Your task to perform on an android device: What's the weather going to be this weekend? Image 0: 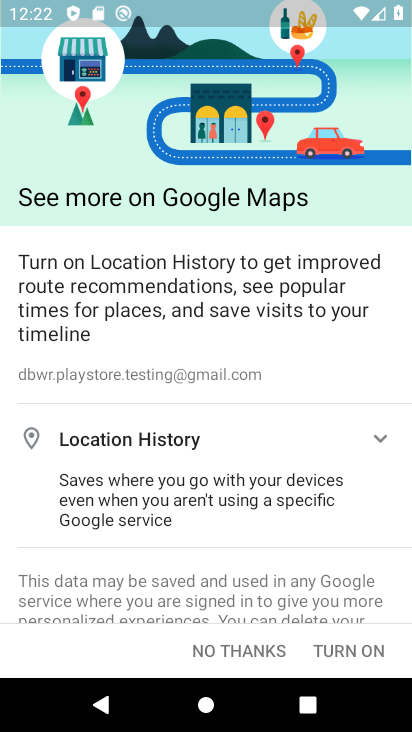
Step 0: press back button
Your task to perform on an android device: What's the weather going to be this weekend? Image 1: 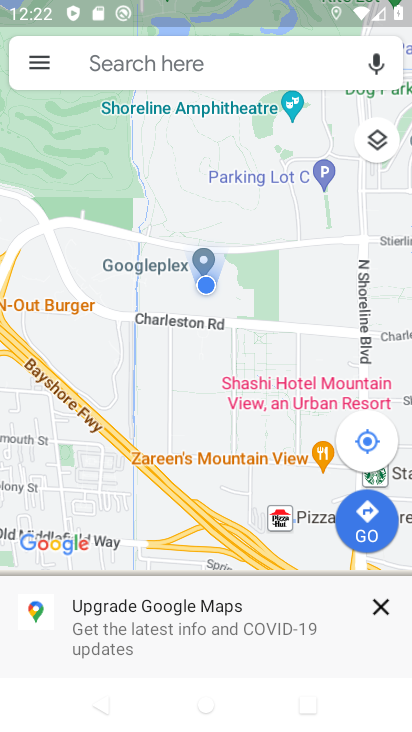
Step 1: press home button
Your task to perform on an android device: What's the weather going to be this weekend? Image 2: 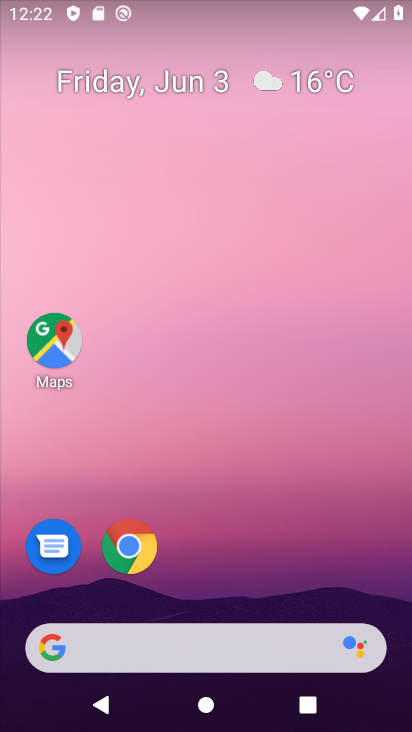
Step 2: click (271, 77)
Your task to perform on an android device: What's the weather going to be this weekend? Image 3: 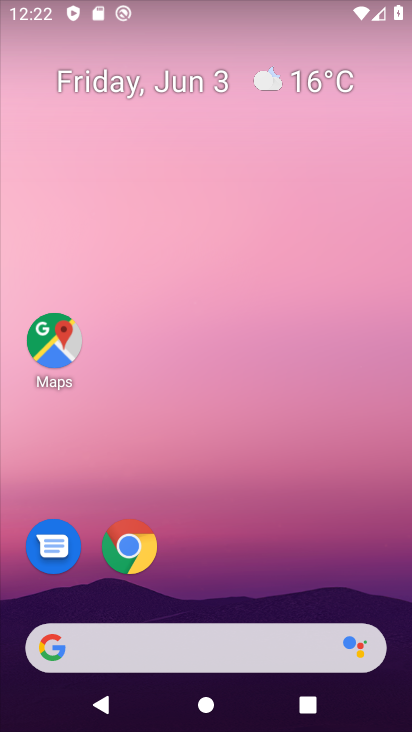
Step 3: click (266, 81)
Your task to perform on an android device: What's the weather going to be this weekend? Image 4: 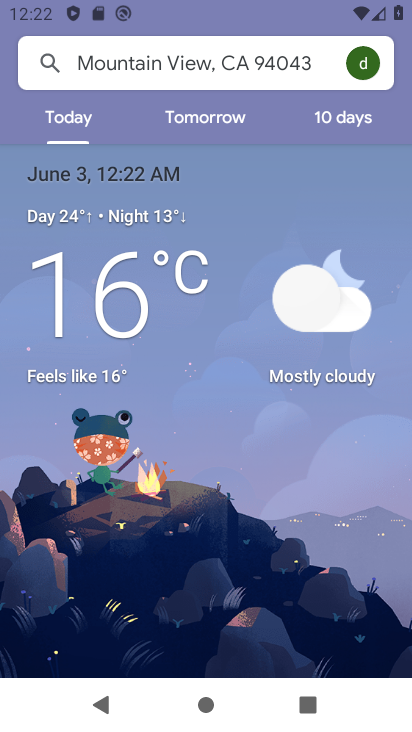
Step 4: click (323, 116)
Your task to perform on an android device: What's the weather going to be this weekend? Image 5: 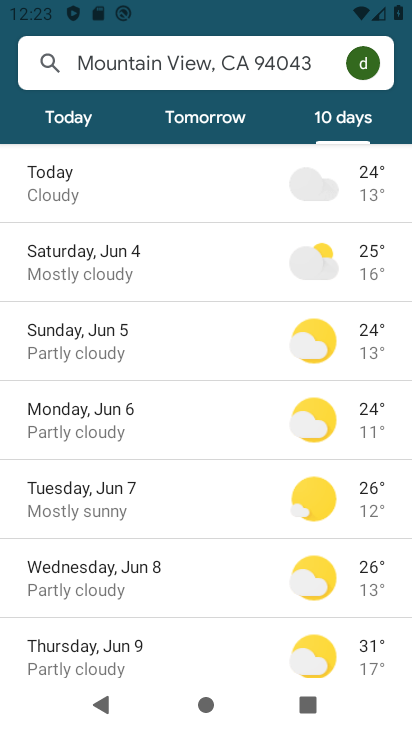
Step 5: task complete